Your task to perform on an android device: refresh tabs in the chrome app Image 0: 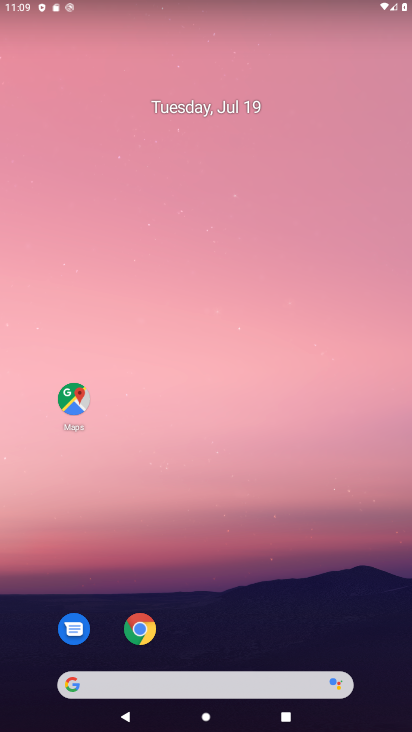
Step 0: drag from (298, 494) to (285, 137)
Your task to perform on an android device: refresh tabs in the chrome app Image 1: 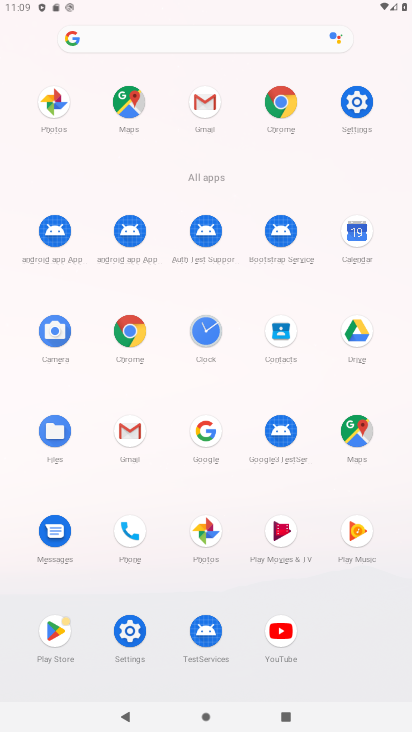
Step 1: click (280, 102)
Your task to perform on an android device: refresh tabs in the chrome app Image 2: 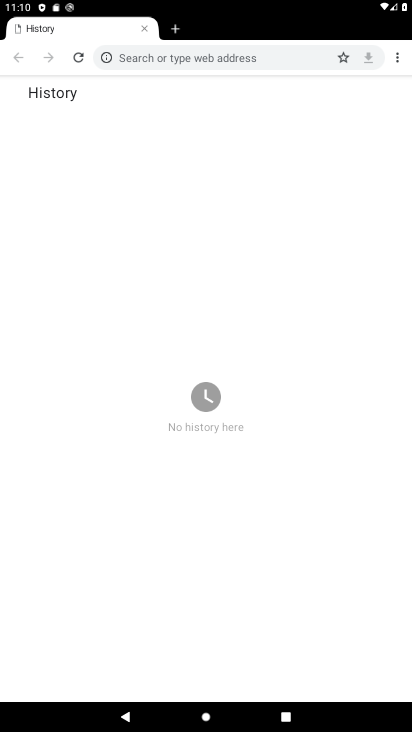
Step 2: click (403, 54)
Your task to perform on an android device: refresh tabs in the chrome app Image 3: 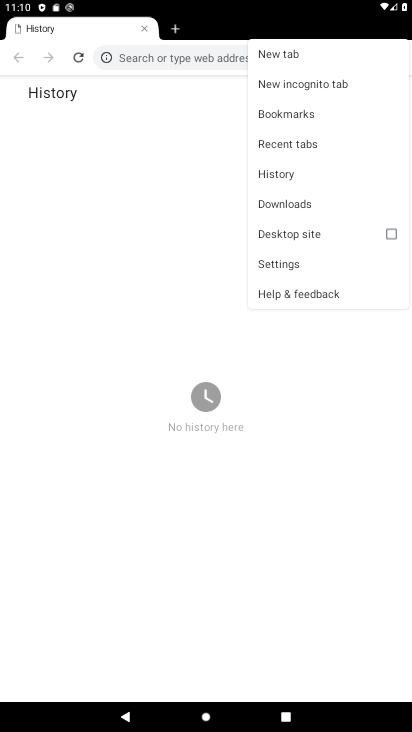
Step 3: click (25, 223)
Your task to perform on an android device: refresh tabs in the chrome app Image 4: 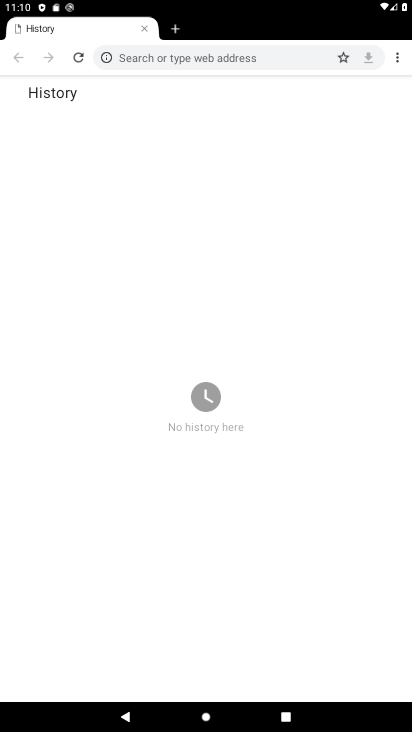
Step 4: click (81, 57)
Your task to perform on an android device: refresh tabs in the chrome app Image 5: 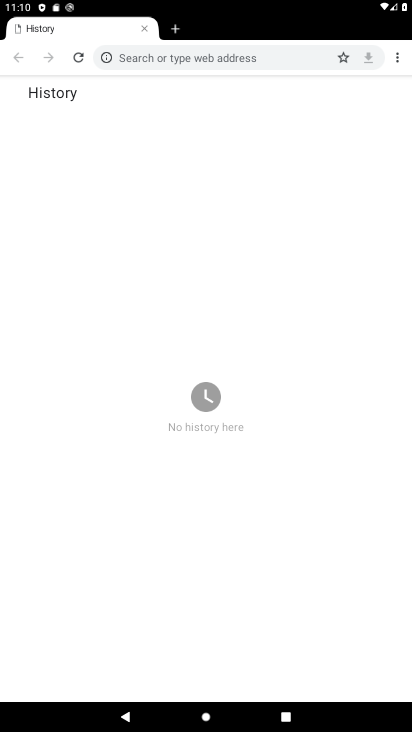
Step 5: task complete